Your task to perform on an android device: Go to eBay Image 0: 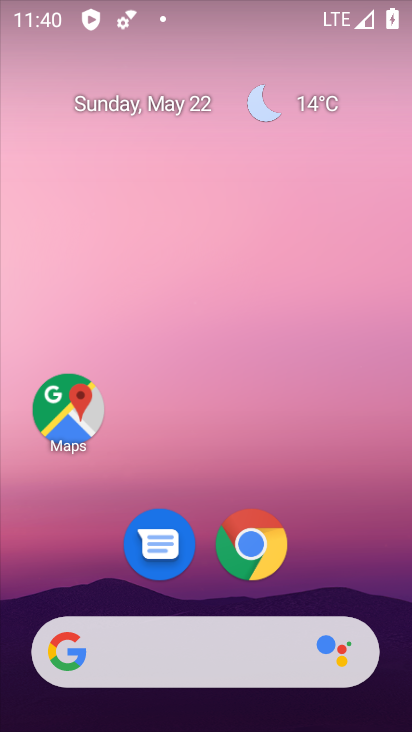
Step 0: click (247, 549)
Your task to perform on an android device: Go to eBay Image 1: 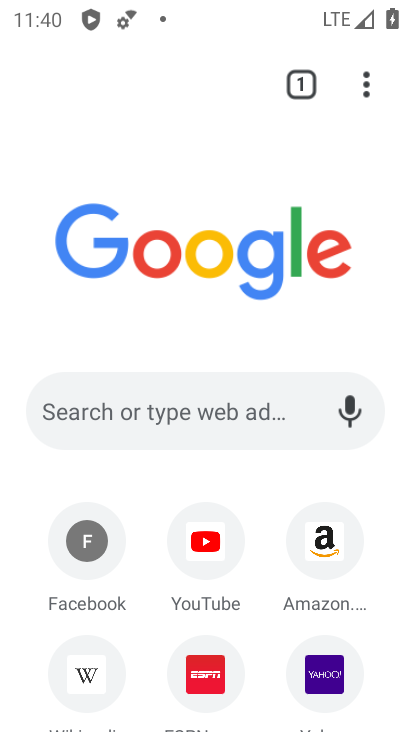
Step 1: drag from (241, 651) to (260, 364)
Your task to perform on an android device: Go to eBay Image 2: 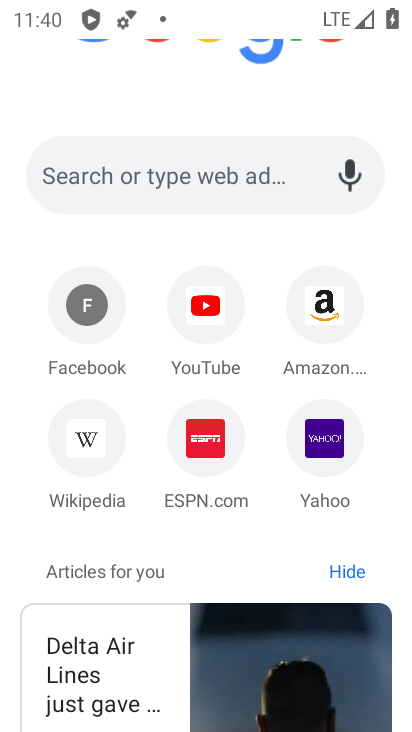
Step 2: drag from (233, 636) to (253, 392)
Your task to perform on an android device: Go to eBay Image 3: 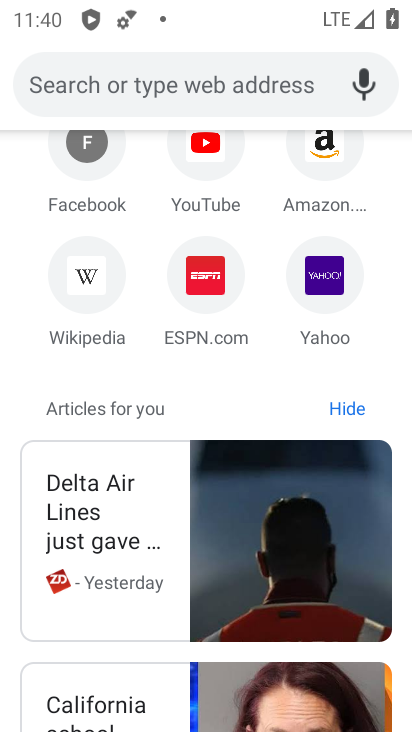
Step 3: drag from (230, 256) to (214, 532)
Your task to perform on an android device: Go to eBay Image 4: 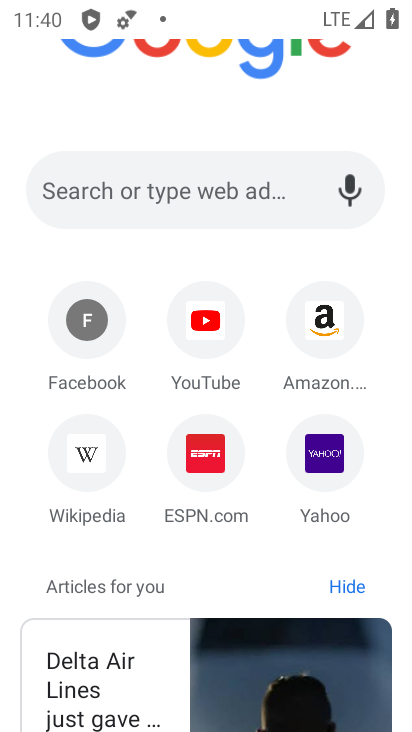
Step 4: click (181, 182)
Your task to perform on an android device: Go to eBay Image 5: 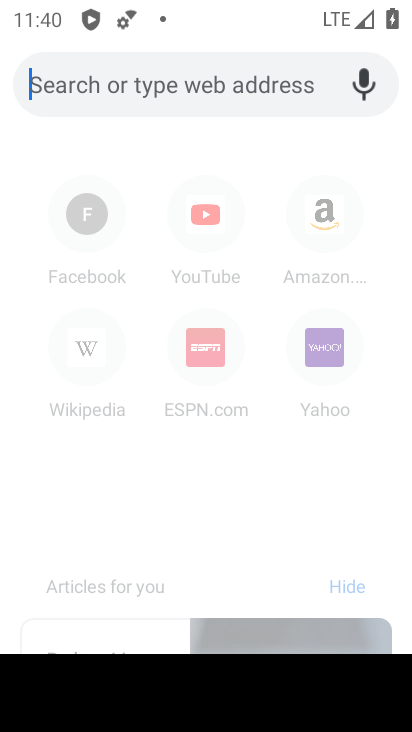
Step 5: type "www.ebay.com"
Your task to perform on an android device: Go to eBay Image 6: 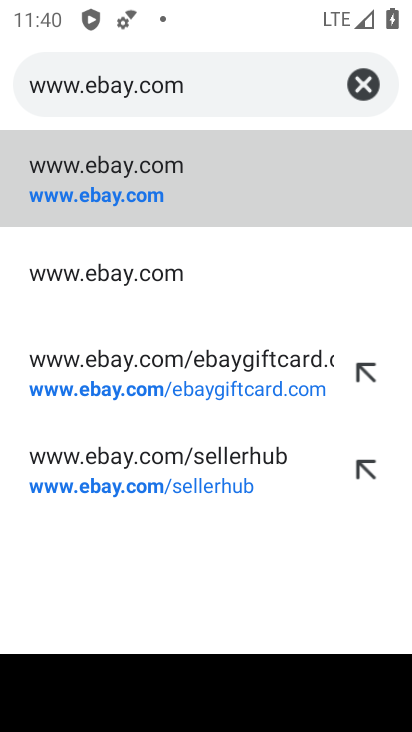
Step 6: click (137, 176)
Your task to perform on an android device: Go to eBay Image 7: 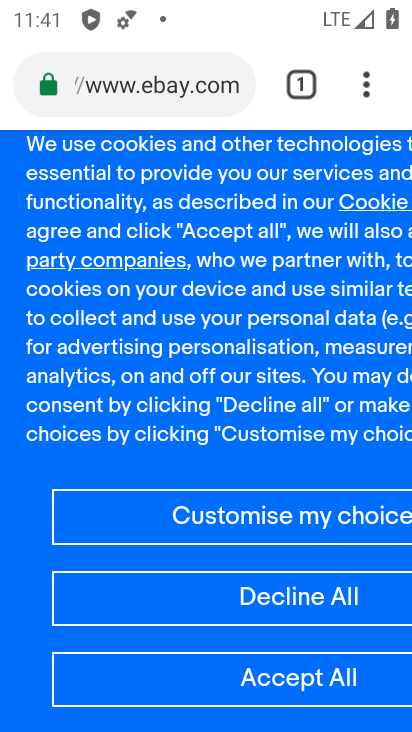
Step 7: task complete